Your task to perform on an android device: turn off sleep mode Image 0: 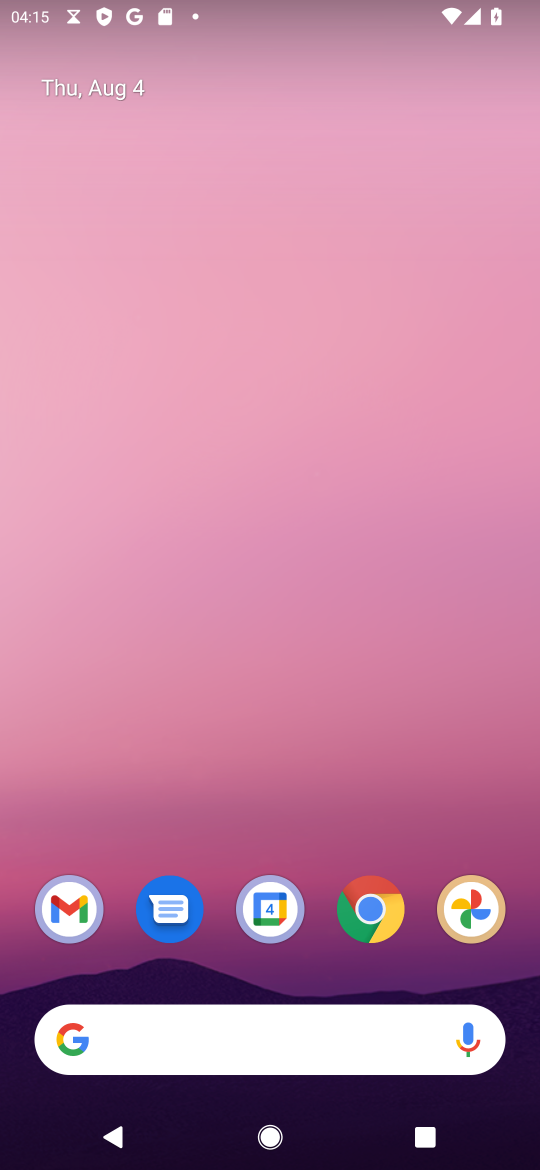
Step 0: drag from (228, 1048) to (358, 178)
Your task to perform on an android device: turn off sleep mode Image 1: 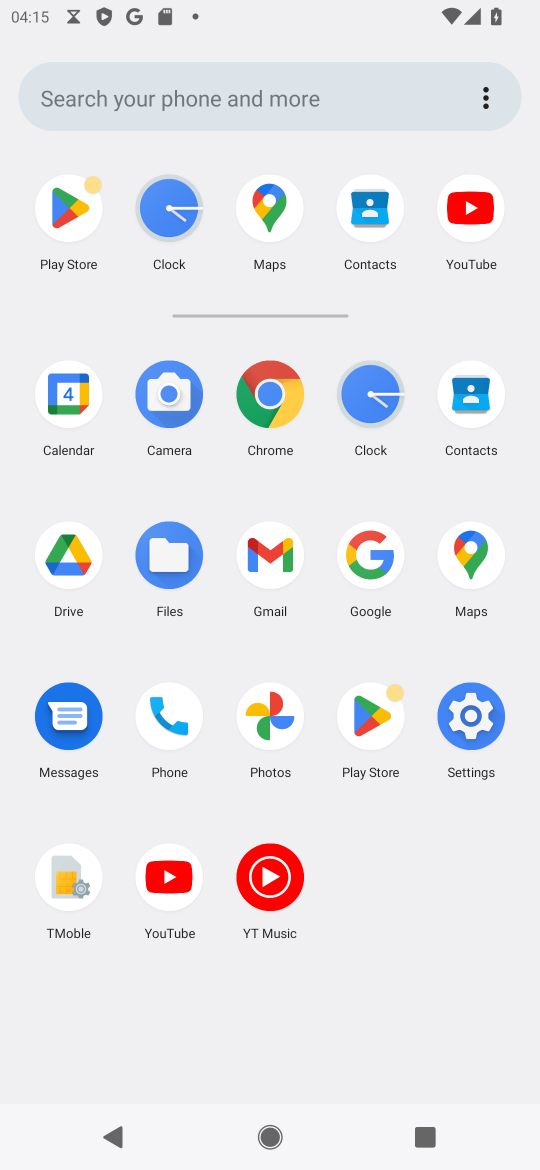
Step 1: click (463, 717)
Your task to perform on an android device: turn off sleep mode Image 2: 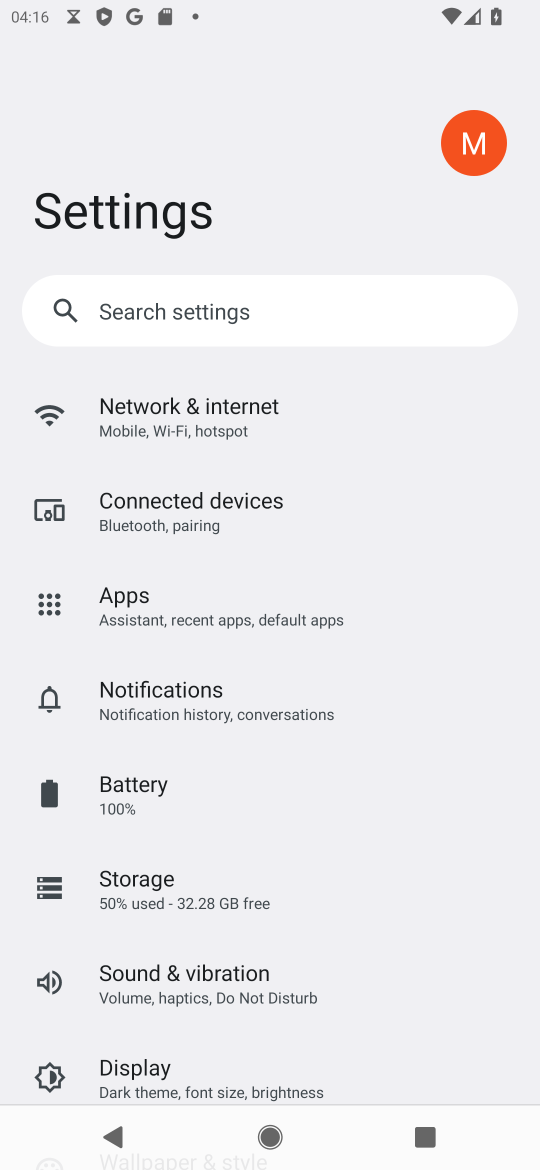
Step 2: drag from (324, 832) to (402, 477)
Your task to perform on an android device: turn off sleep mode Image 3: 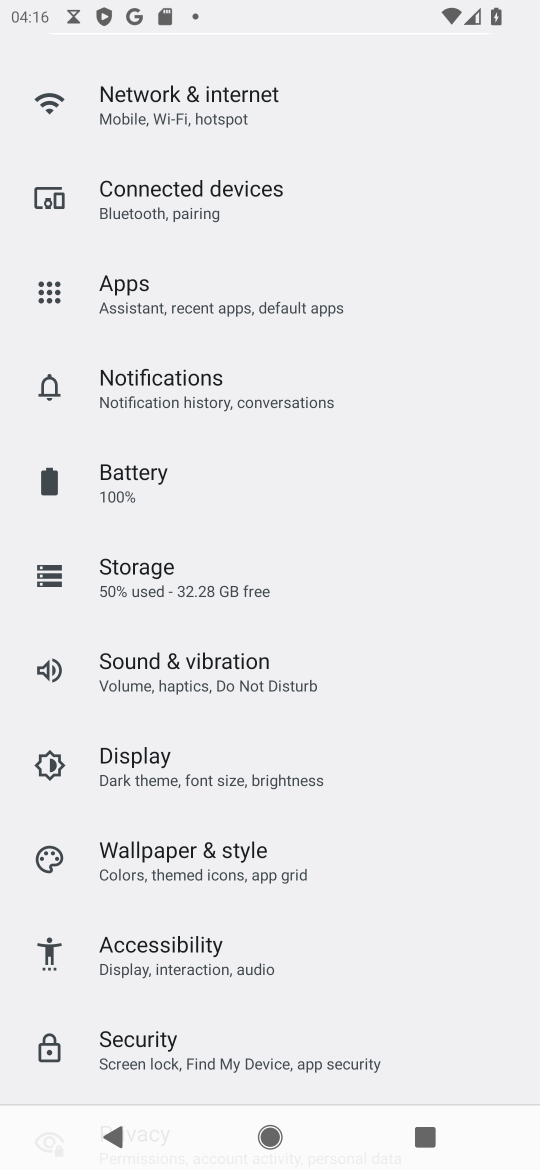
Step 3: click (229, 788)
Your task to perform on an android device: turn off sleep mode Image 4: 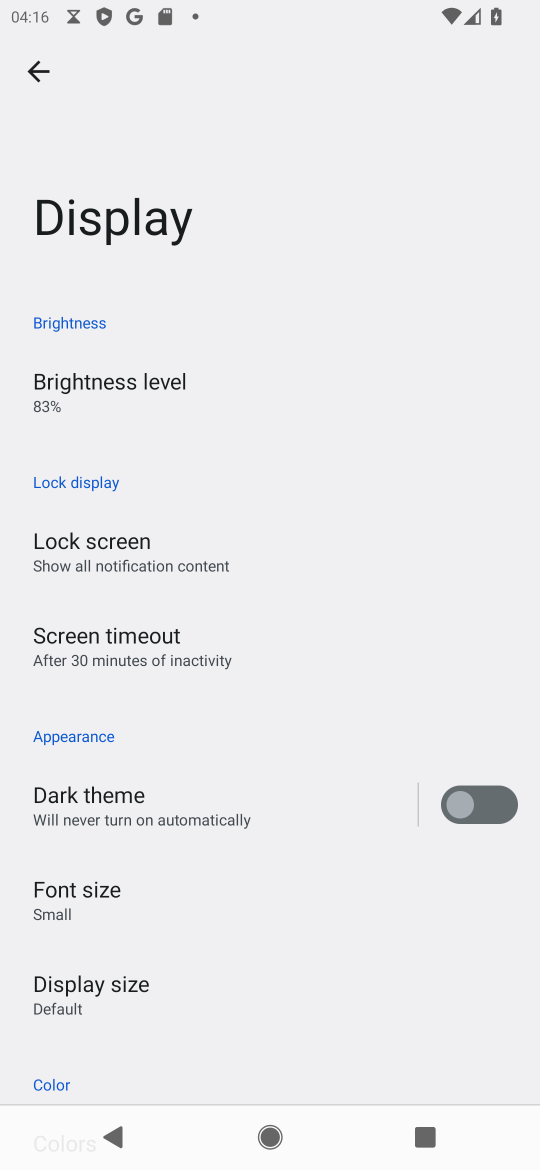
Step 4: task complete